Your task to perform on an android device: Go to settings Image 0: 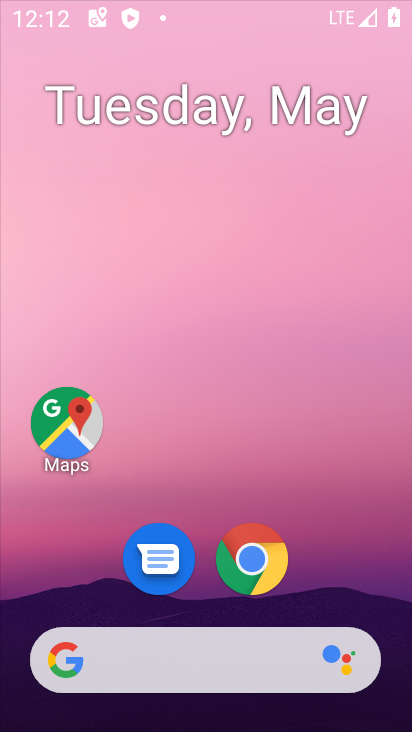
Step 0: drag from (316, 424) to (282, 172)
Your task to perform on an android device: Go to settings Image 1: 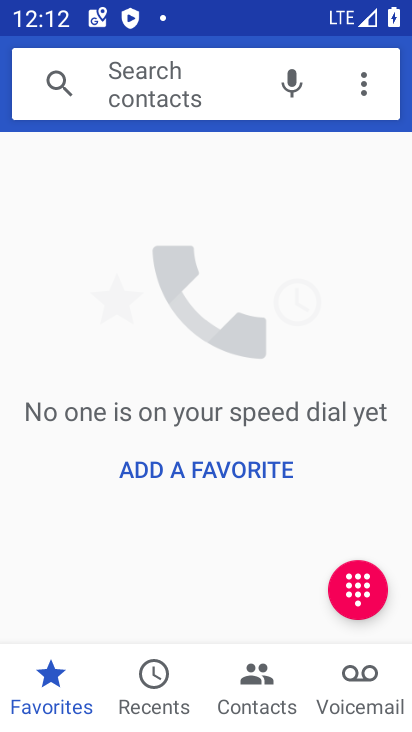
Step 1: press home button
Your task to perform on an android device: Go to settings Image 2: 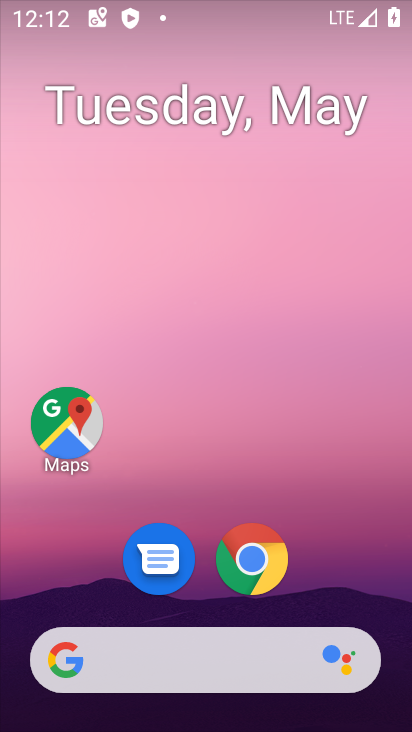
Step 2: drag from (338, 558) to (280, 161)
Your task to perform on an android device: Go to settings Image 3: 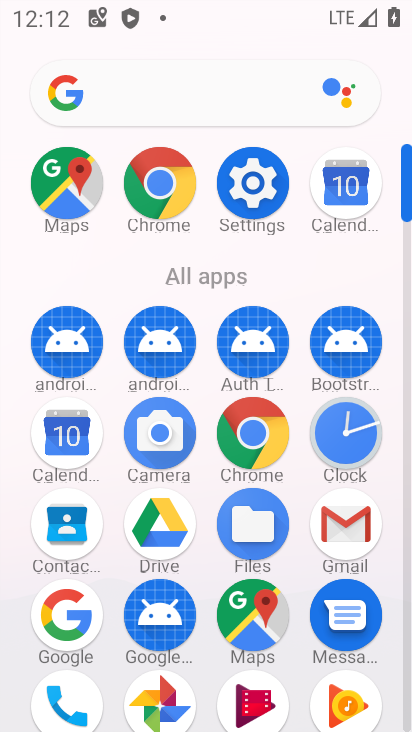
Step 3: click (253, 184)
Your task to perform on an android device: Go to settings Image 4: 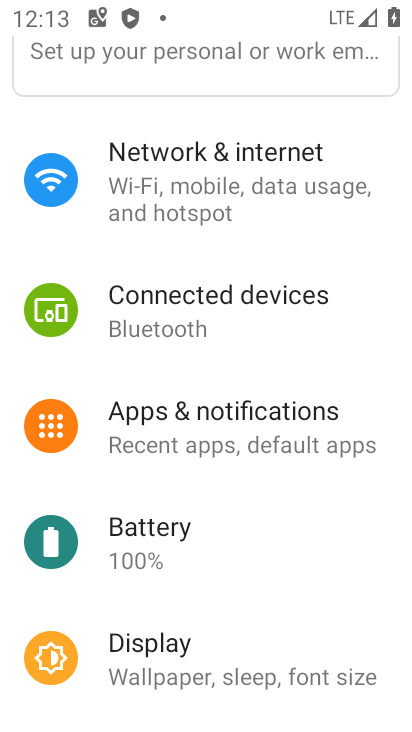
Step 4: task complete